Your task to perform on an android device: delete browsing data in the chrome app Image 0: 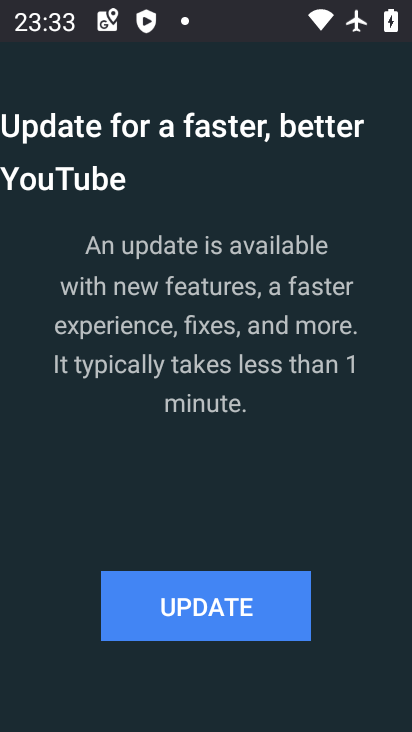
Step 0: press home button
Your task to perform on an android device: delete browsing data in the chrome app Image 1: 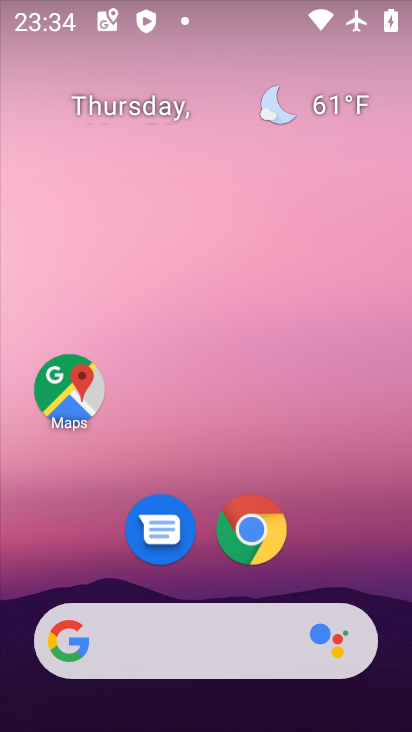
Step 1: click (230, 528)
Your task to perform on an android device: delete browsing data in the chrome app Image 2: 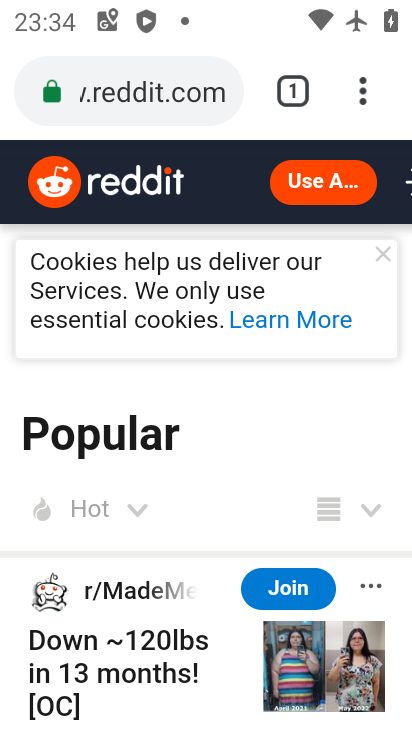
Step 2: click (356, 88)
Your task to perform on an android device: delete browsing data in the chrome app Image 3: 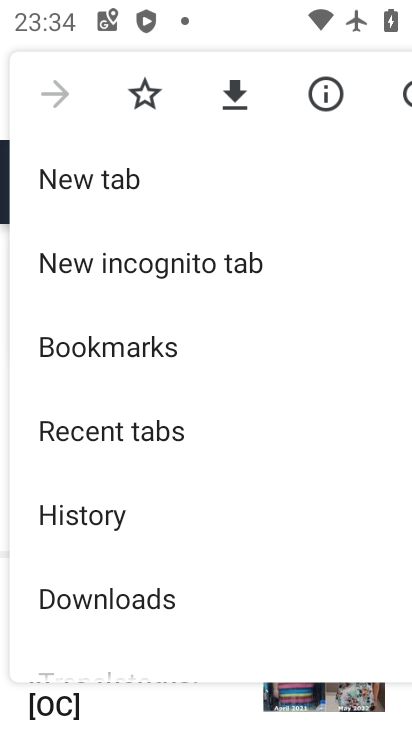
Step 3: task complete